Your task to perform on an android device: toggle javascript in the chrome app Image 0: 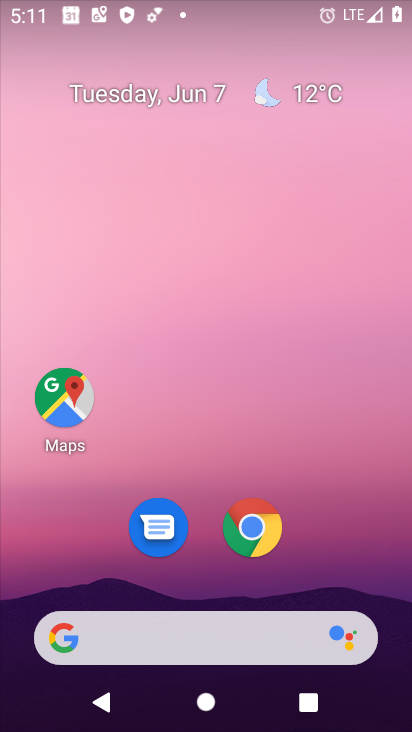
Step 0: click (253, 528)
Your task to perform on an android device: toggle javascript in the chrome app Image 1: 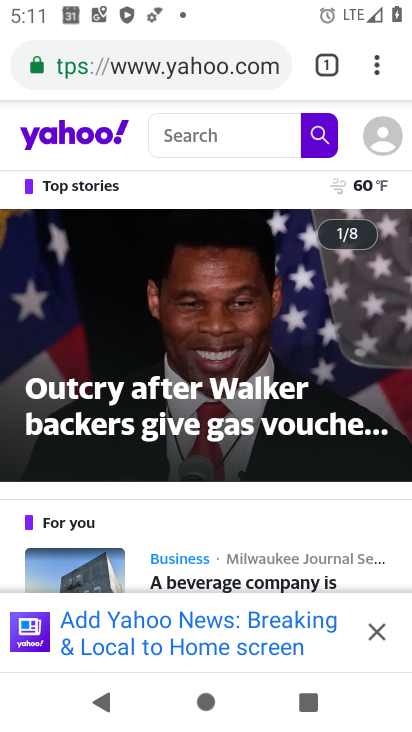
Step 1: click (378, 65)
Your task to perform on an android device: toggle javascript in the chrome app Image 2: 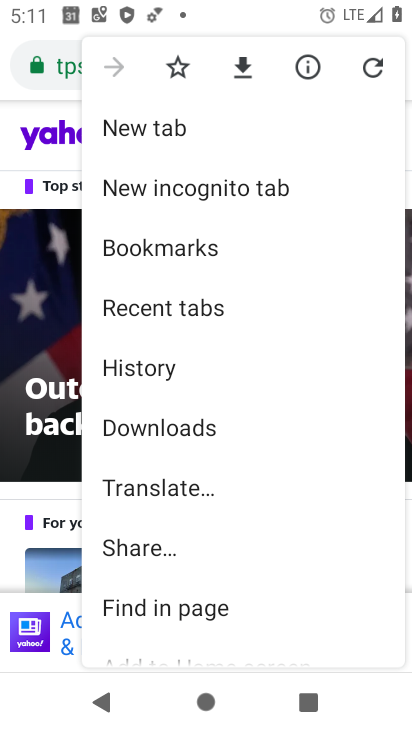
Step 2: drag from (182, 537) to (200, 365)
Your task to perform on an android device: toggle javascript in the chrome app Image 3: 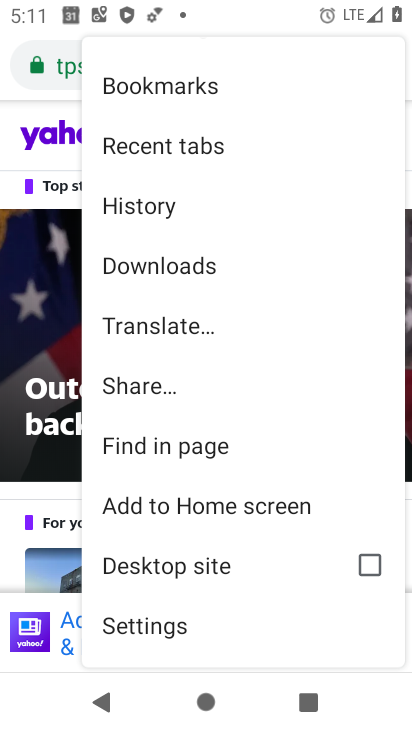
Step 3: drag from (171, 597) to (215, 443)
Your task to perform on an android device: toggle javascript in the chrome app Image 4: 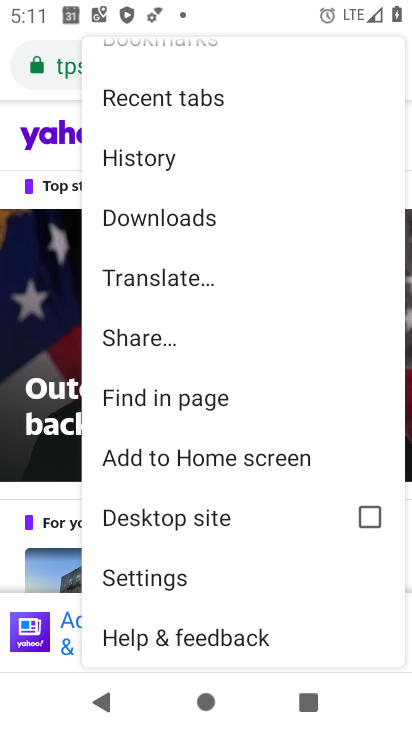
Step 4: click (147, 581)
Your task to perform on an android device: toggle javascript in the chrome app Image 5: 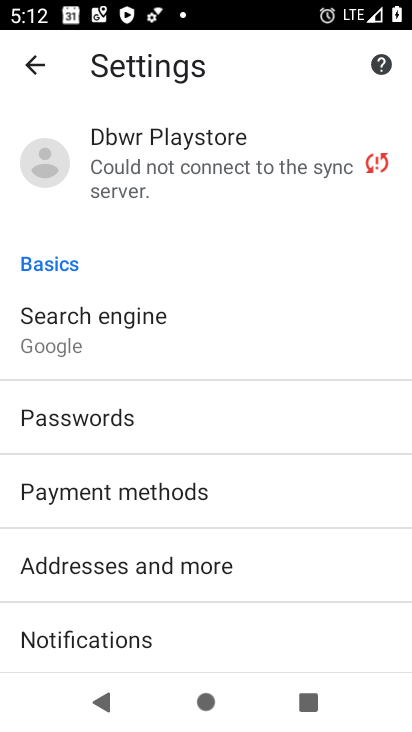
Step 5: drag from (124, 482) to (171, 335)
Your task to perform on an android device: toggle javascript in the chrome app Image 6: 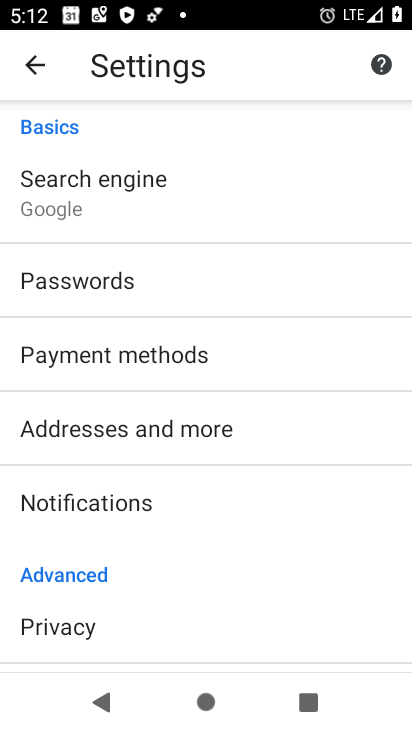
Step 6: drag from (110, 534) to (179, 383)
Your task to perform on an android device: toggle javascript in the chrome app Image 7: 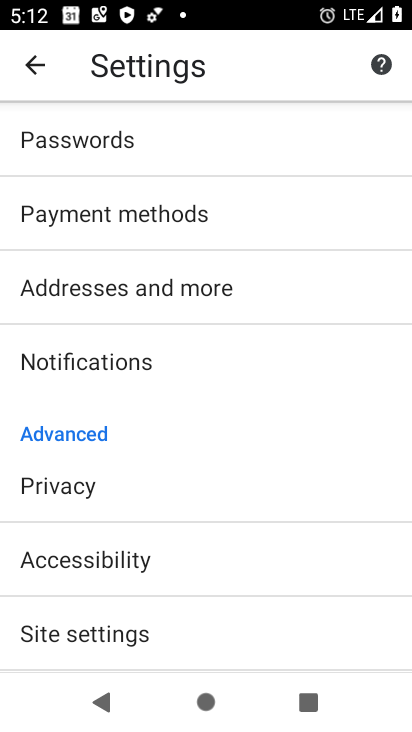
Step 7: drag from (87, 522) to (143, 412)
Your task to perform on an android device: toggle javascript in the chrome app Image 8: 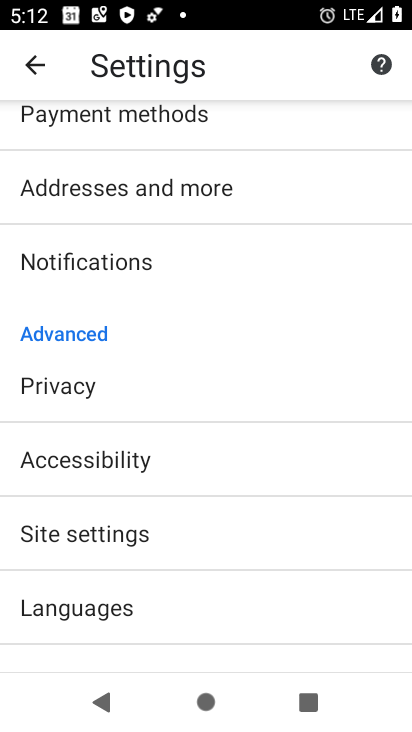
Step 8: click (92, 532)
Your task to perform on an android device: toggle javascript in the chrome app Image 9: 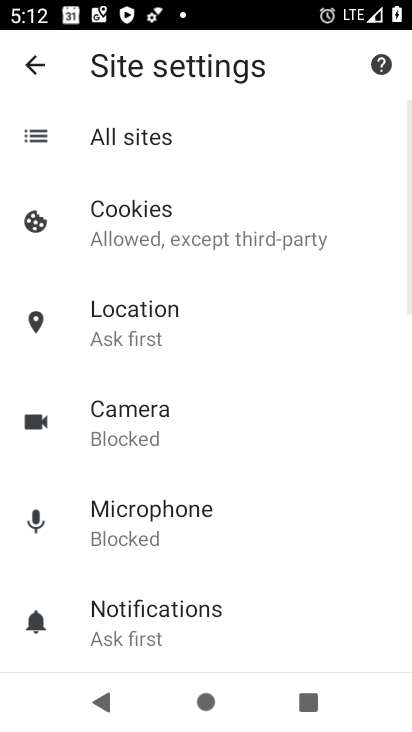
Step 9: drag from (155, 475) to (179, 335)
Your task to perform on an android device: toggle javascript in the chrome app Image 10: 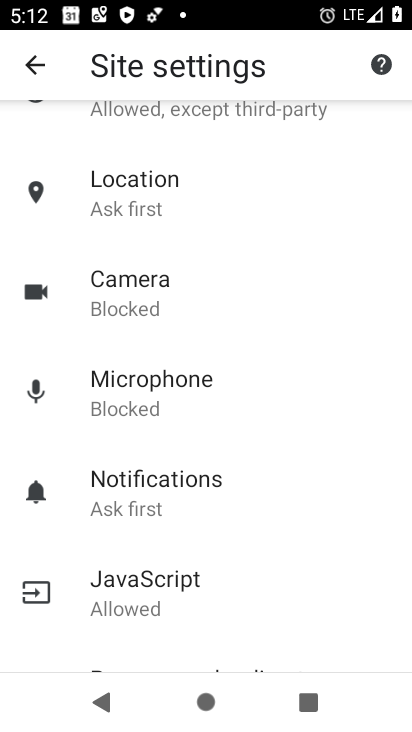
Step 10: drag from (156, 530) to (209, 402)
Your task to perform on an android device: toggle javascript in the chrome app Image 11: 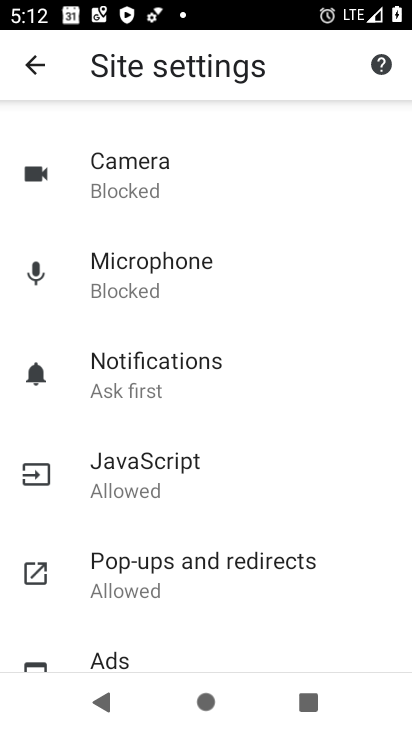
Step 11: click (165, 465)
Your task to perform on an android device: toggle javascript in the chrome app Image 12: 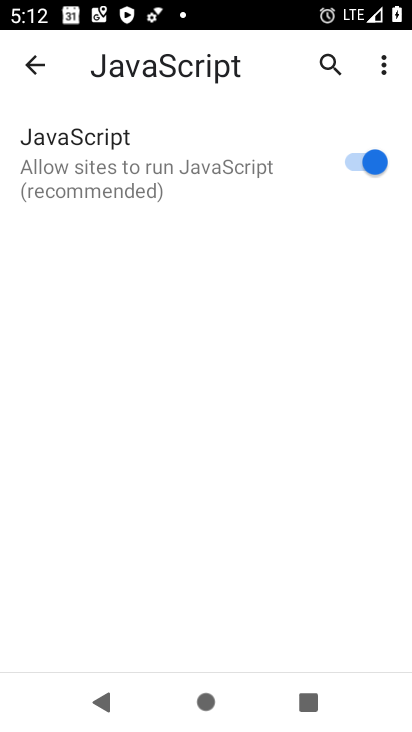
Step 12: click (359, 152)
Your task to perform on an android device: toggle javascript in the chrome app Image 13: 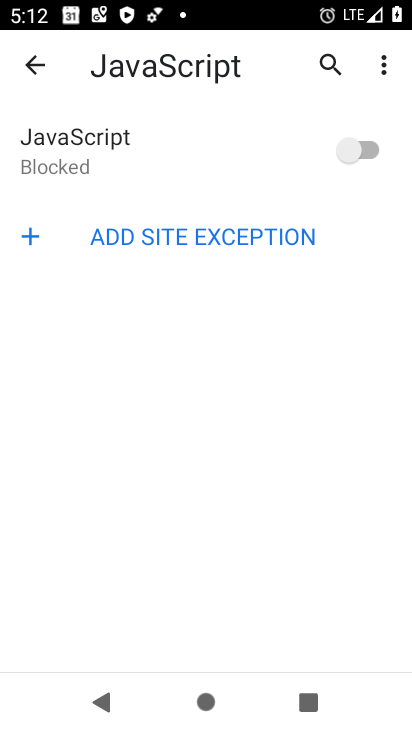
Step 13: task complete